Your task to perform on an android device: read, delete, or share a saved page in the chrome app Image 0: 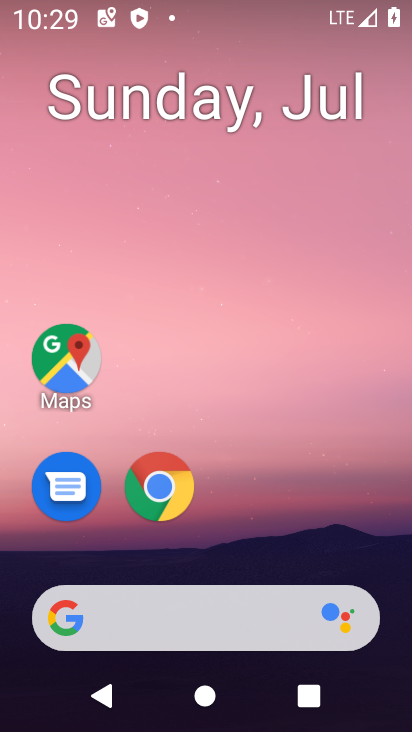
Step 0: drag from (354, 538) to (369, 90)
Your task to perform on an android device: read, delete, or share a saved page in the chrome app Image 1: 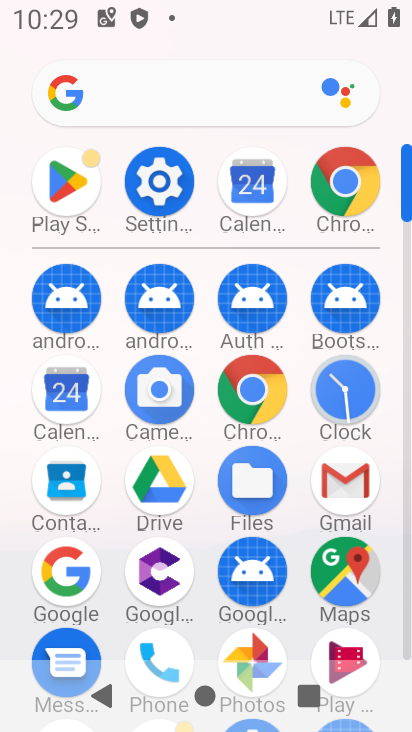
Step 1: click (248, 397)
Your task to perform on an android device: read, delete, or share a saved page in the chrome app Image 2: 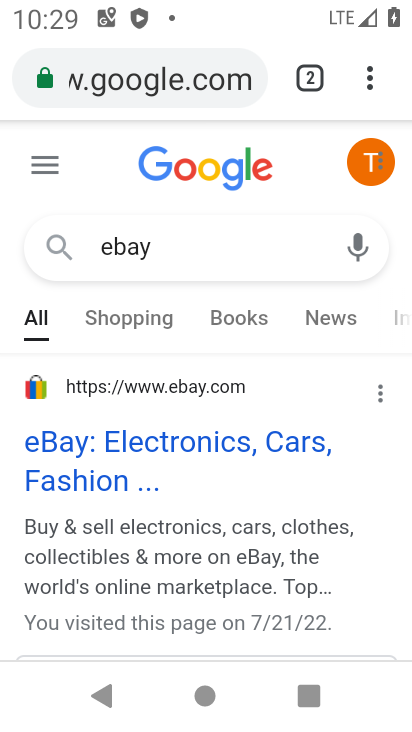
Step 2: click (370, 85)
Your task to perform on an android device: read, delete, or share a saved page in the chrome app Image 3: 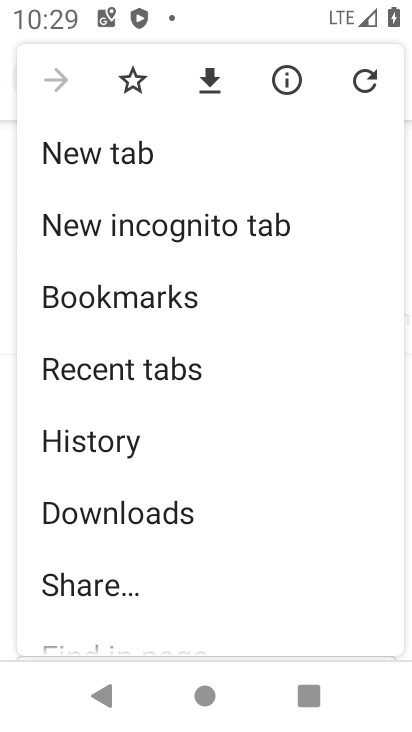
Step 3: click (169, 513)
Your task to perform on an android device: read, delete, or share a saved page in the chrome app Image 4: 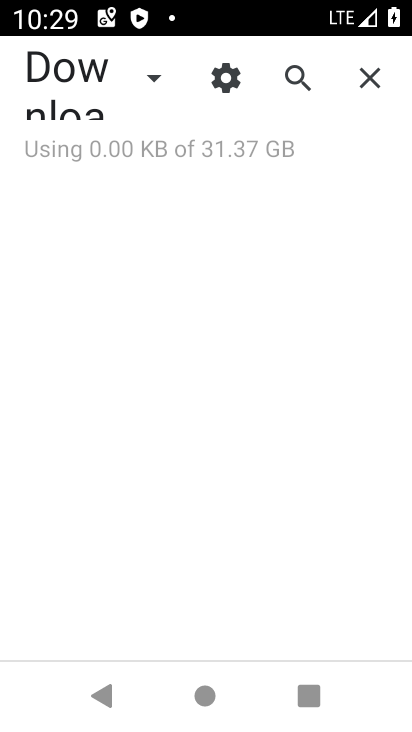
Step 4: click (153, 76)
Your task to perform on an android device: read, delete, or share a saved page in the chrome app Image 5: 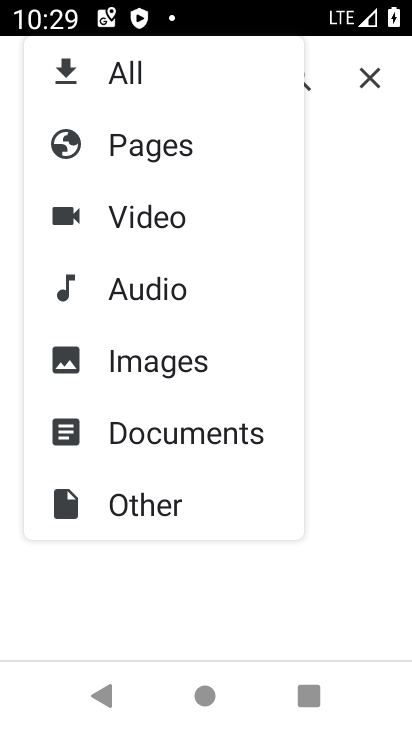
Step 5: click (143, 144)
Your task to perform on an android device: read, delete, or share a saved page in the chrome app Image 6: 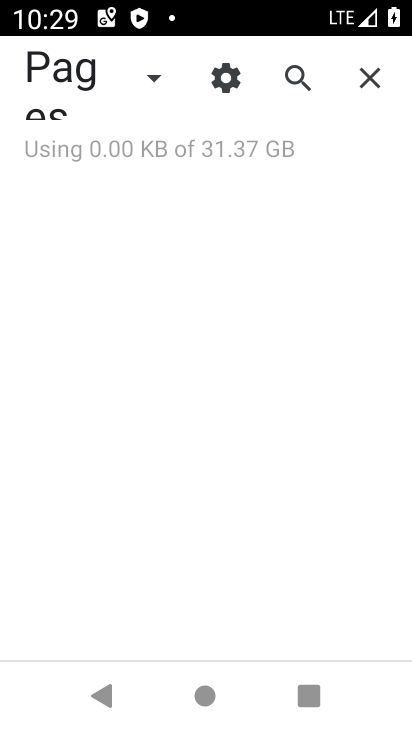
Step 6: task complete